Your task to perform on an android device: see tabs open on other devices in the chrome app Image 0: 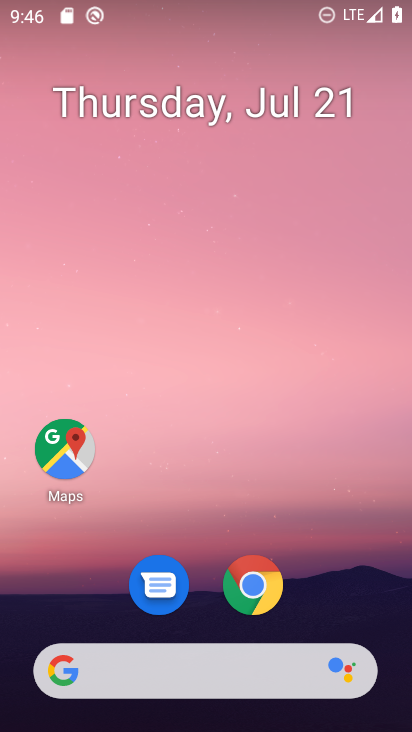
Step 0: click (253, 583)
Your task to perform on an android device: see tabs open on other devices in the chrome app Image 1: 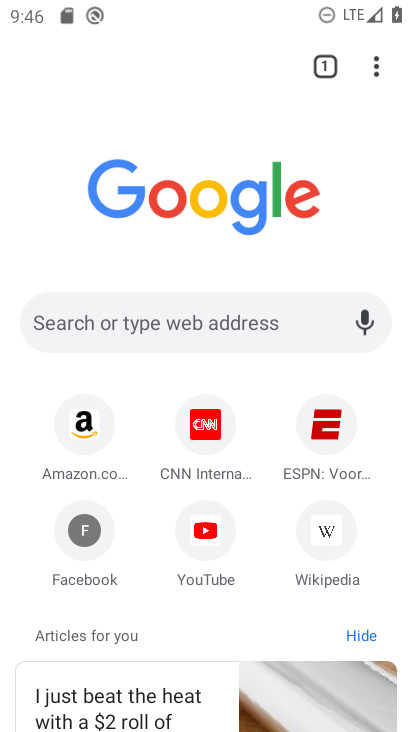
Step 1: click (374, 69)
Your task to perform on an android device: see tabs open on other devices in the chrome app Image 2: 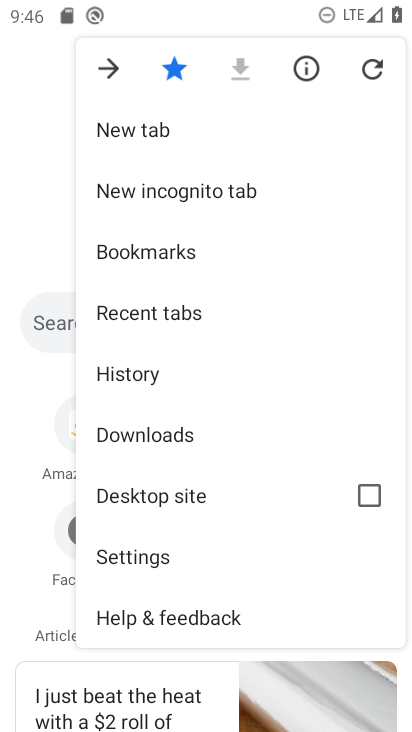
Step 2: click (189, 308)
Your task to perform on an android device: see tabs open on other devices in the chrome app Image 3: 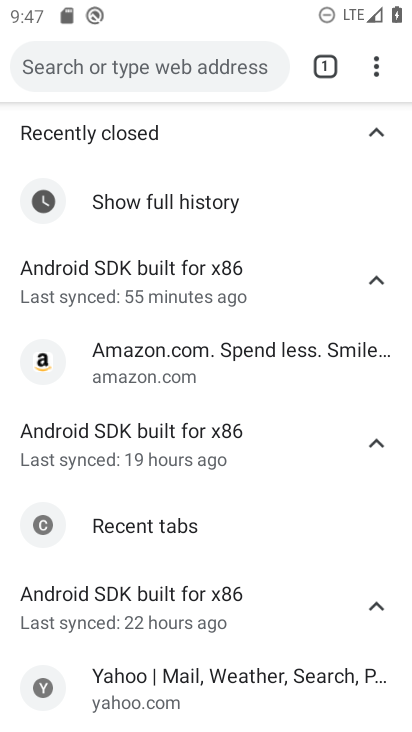
Step 3: task complete